Your task to perform on an android device: Search for Italian restaurants on Maps Image 0: 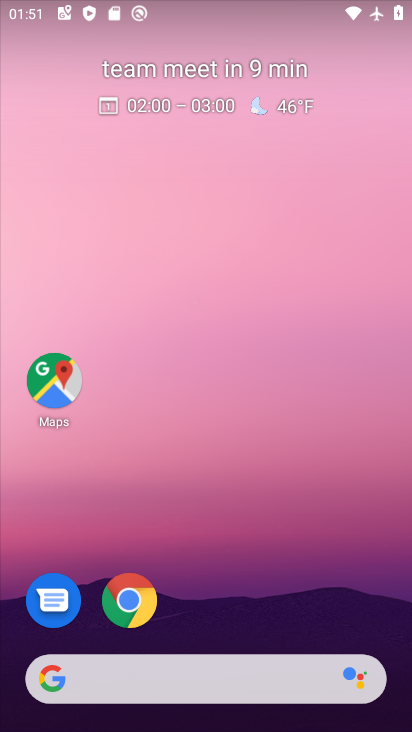
Step 0: drag from (177, 641) to (122, 127)
Your task to perform on an android device: Search for Italian restaurants on Maps Image 1: 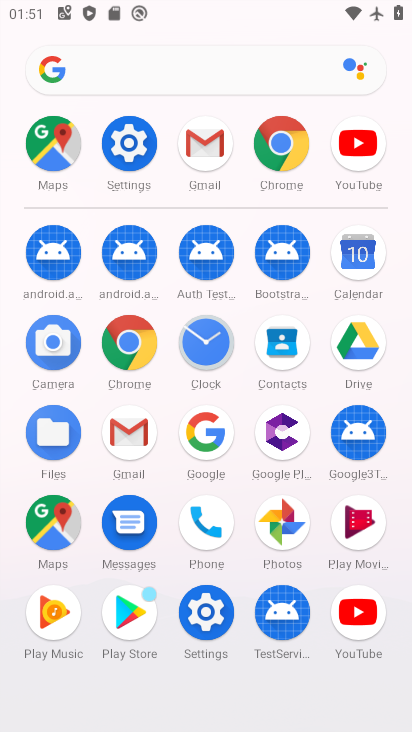
Step 1: click (55, 522)
Your task to perform on an android device: Search for Italian restaurants on Maps Image 2: 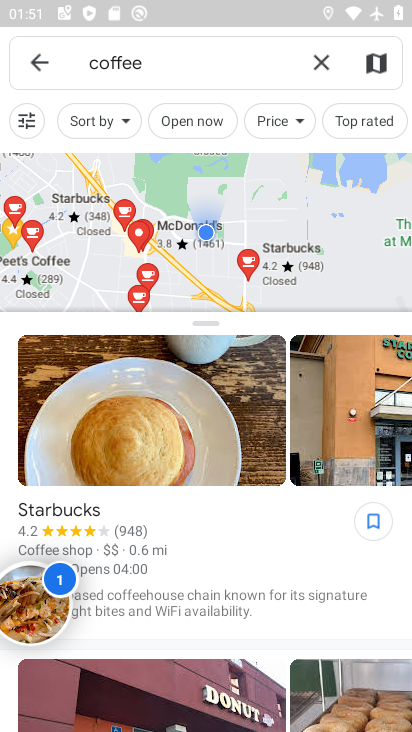
Step 2: click (319, 61)
Your task to perform on an android device: Search for Italian restaurants on Maps Image 3: 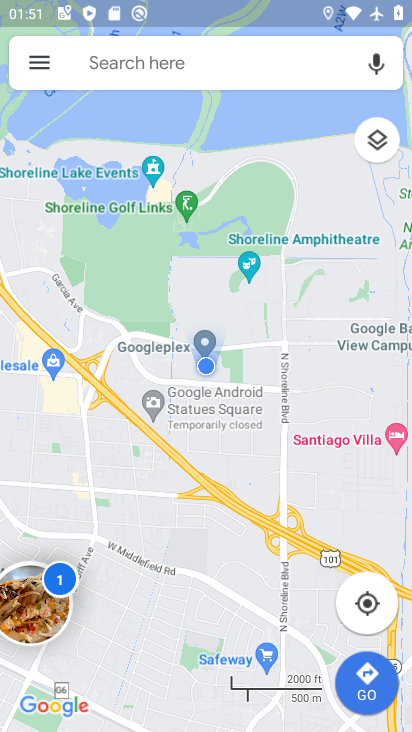
Step 3: click (212, 66)
Your task to perform on an android device: Search for Italian restaurants on Maps Image 4: 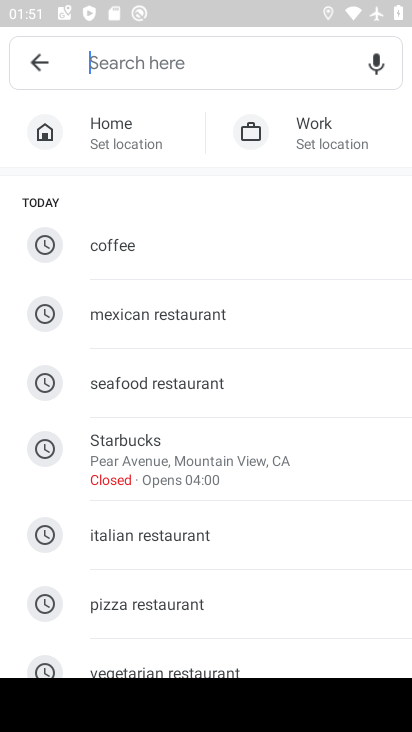
Step 4: click (140, 539)
Your task to perform on an android device: Search for Italian restaurants on Maps Image 5: 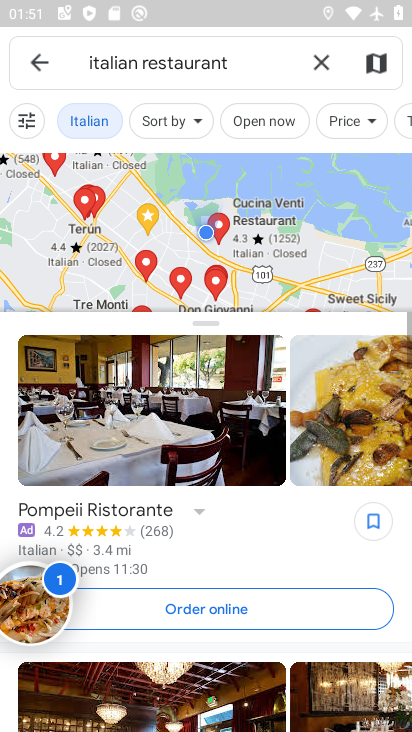
Step 5: task complete